Your task to perform on an android device: remove spam from my inbox in the gmail app Image 0: 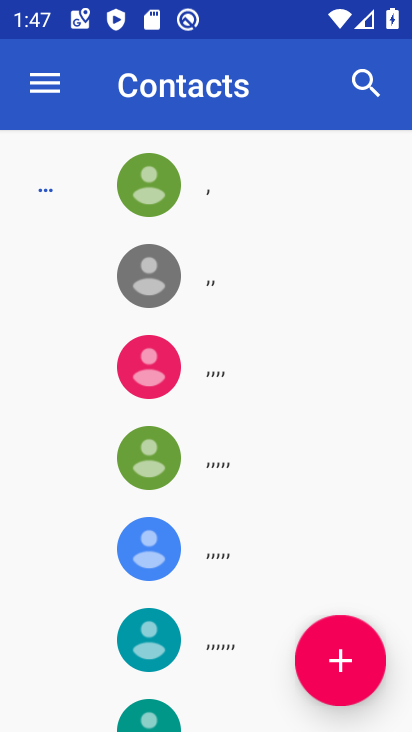
Step 0: press home button
Your task to perform on an android device: remove spam from my inbox in the gmail app Image 1: 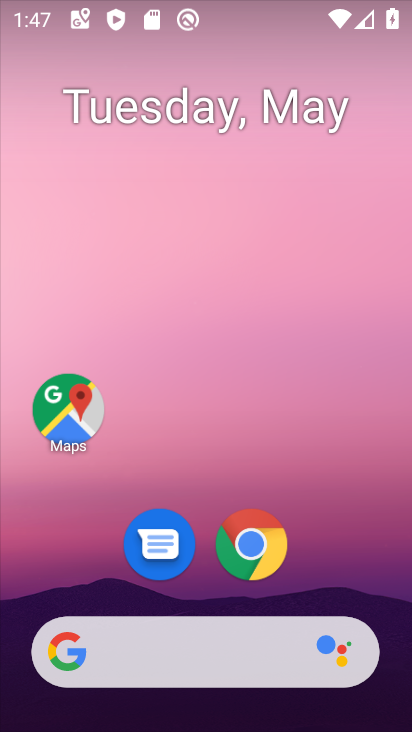
Step 1: drag from (322, 552) to (314, 84)
Your task to perform on an android device: remove spam from my inbox in the gmail app Image 2: 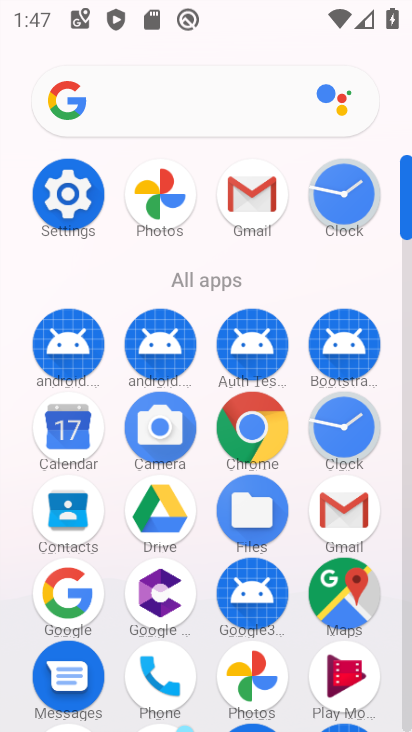
Step 2: click (253, 197)
Your task to perform on an android device: remove spam from my inbox in the gmail app Image 3: 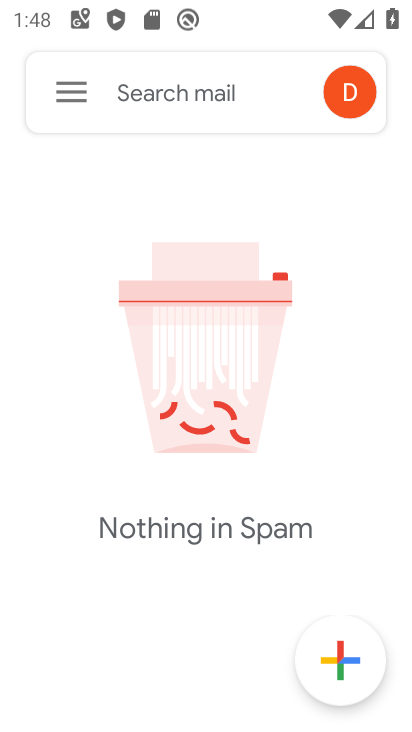
Step 3: click (62, 76)
Your task to perform on an android device: remove spam from my inbox in the gmail app Image 4: 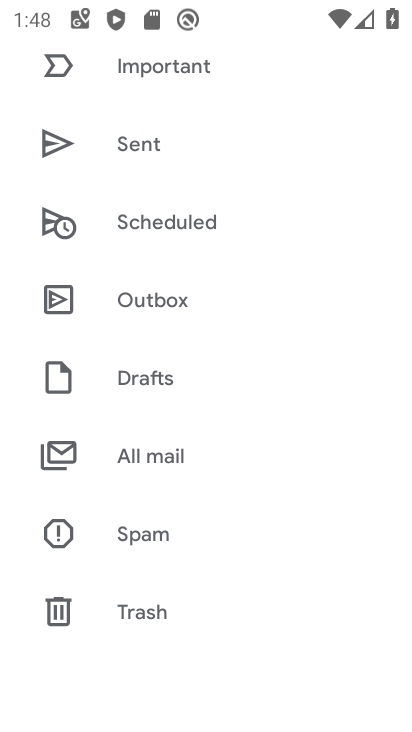
Step 4: drag from (164, 115) to (189, 620)
Your task to perform on an android device: remove spam from my inbox in the gmail app Image 5: 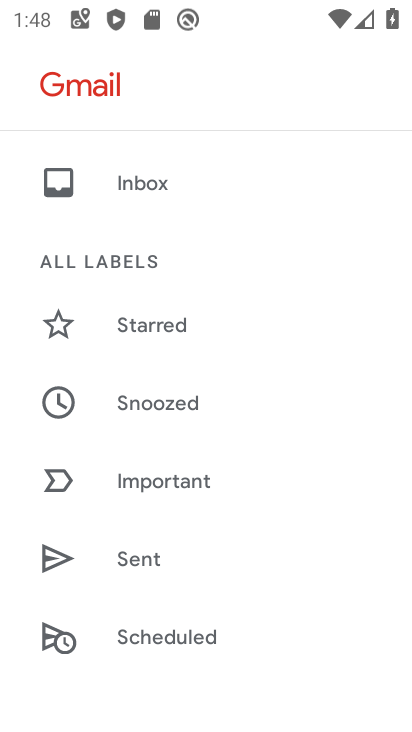
Step 5: click (137, 197)
Your task to perform on an android device: remove spam from my inbox in the gmail app Image 6: 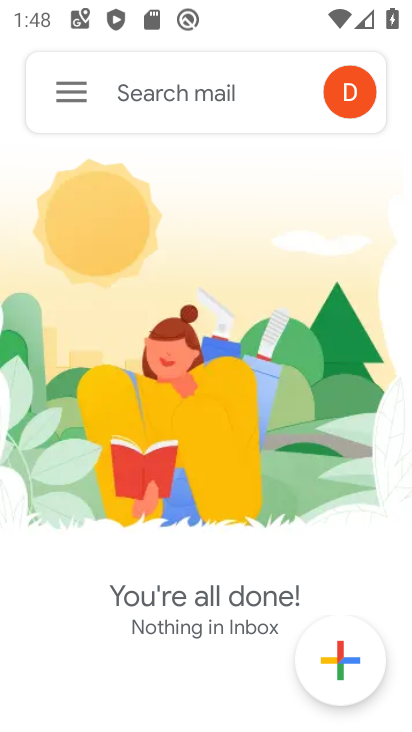
Step 6: task complete